Your task to perform on an android device: show emergency info Image 0: 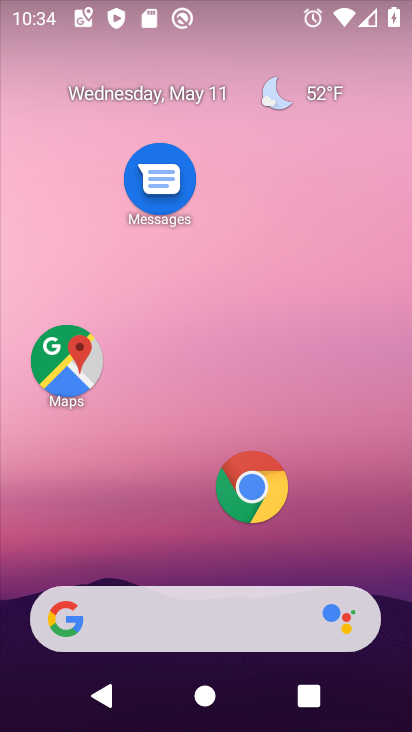
Step 0: drag from (157, 558) to (200, 210)
Your task to perform on an android device: show emergency info Image 1: 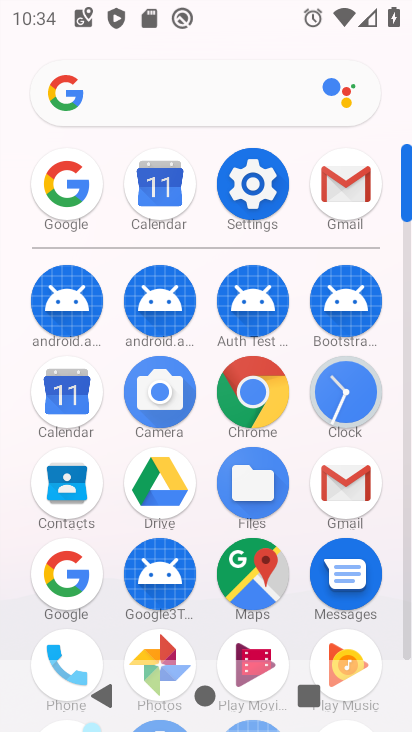
Step 1: click (234, 214)
Your task to perform on an android device: show emergency info Image 2: 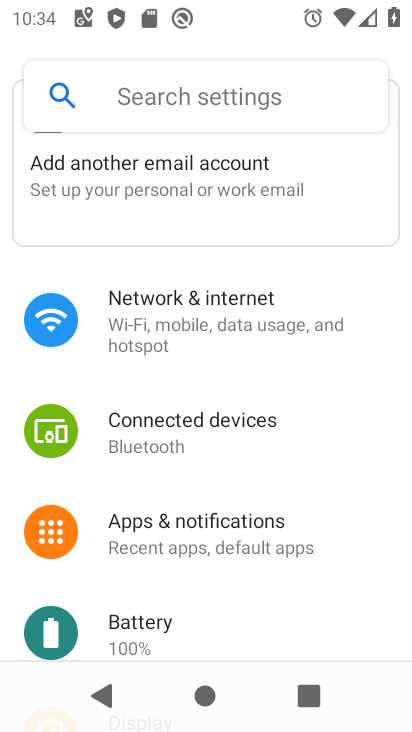
Step 2: drag from (185, 580) to (216, 269)
Your task to perform on an android device: show emergency info Image 3: 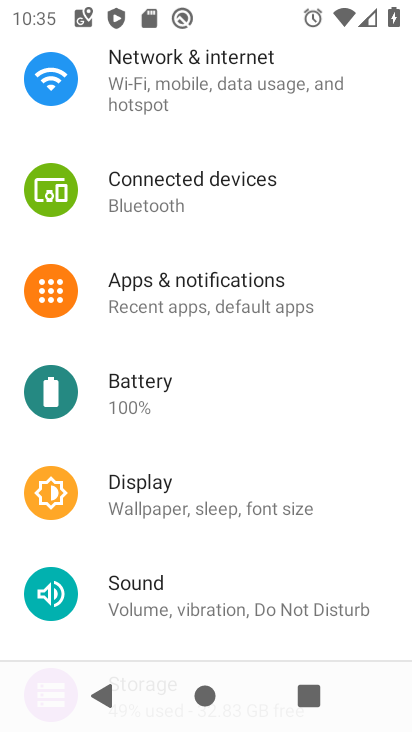
Step 3: drag from (248, 542) to (274, 230)
Your task to perform on an android device: show emergency info Image 4: 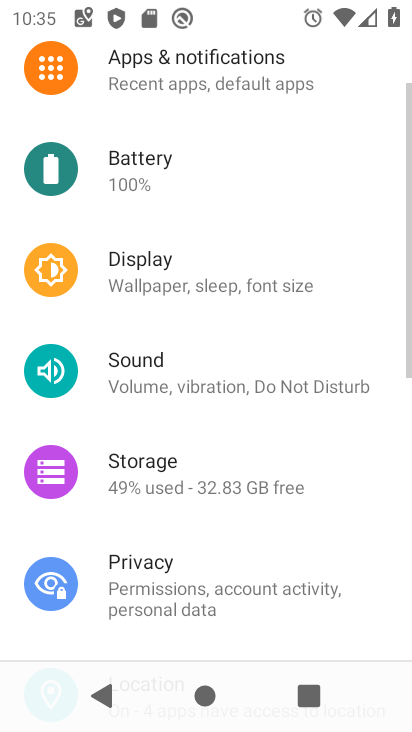
Step 4: drag from (264, 574) to (291, 183)
Your task to perform on an android device: show emergency info Image 5: 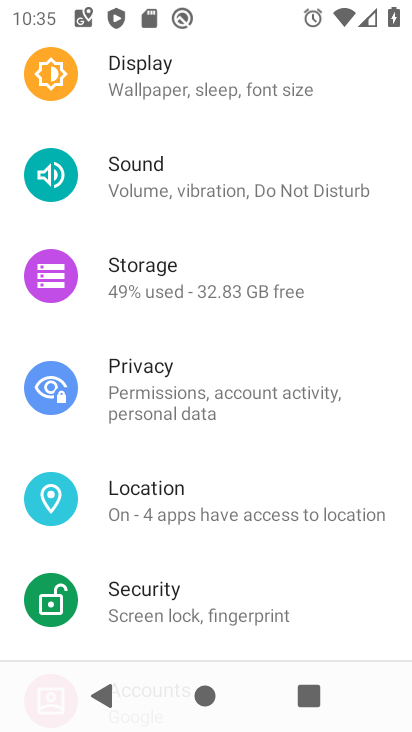
Step 5: drag from (235, 570) to (246, 268)
Your task to perform on an android device: show emergency info Image 6: 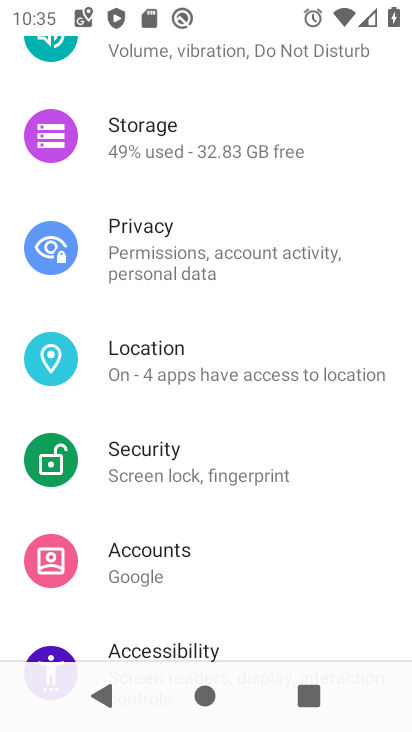
Step 6: drag from (227, 551) to (246, 169)
Your task to perform on an android device: show emergency info Image 7: 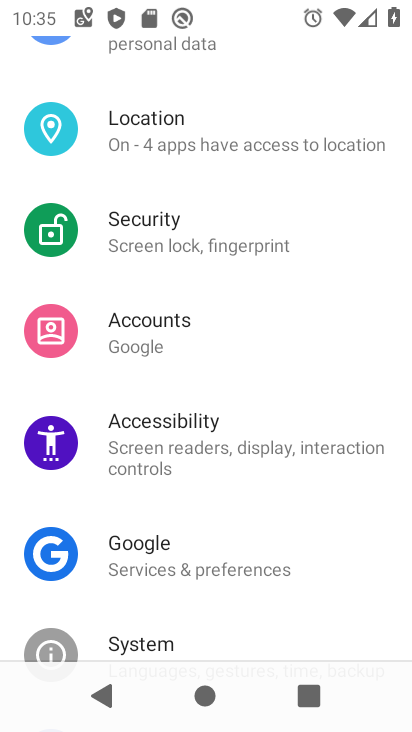
Step 7: drag from (239, 576) to (259, 141)
Your task to perform on an android device: show emergency info Image 8: 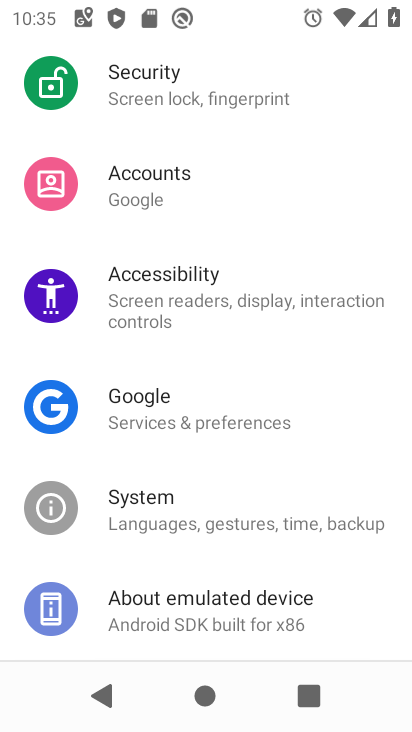
Step 8: click (202, 610)
Your task to perform on an android device: show emergency info Image 9: 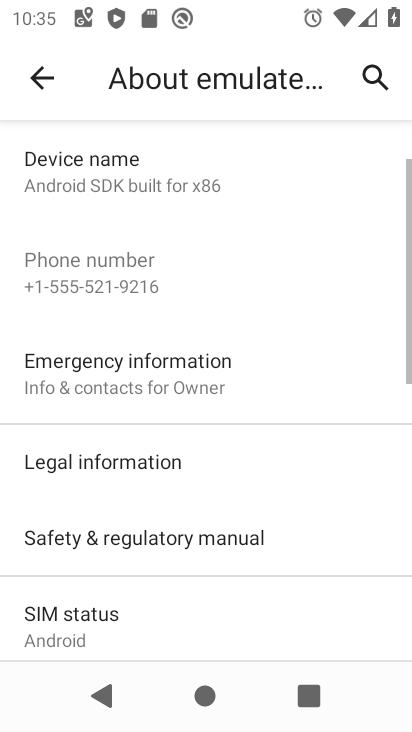
Step 9: click (166, 352)
Your task to perform on an android device: show emergency info Image 10: 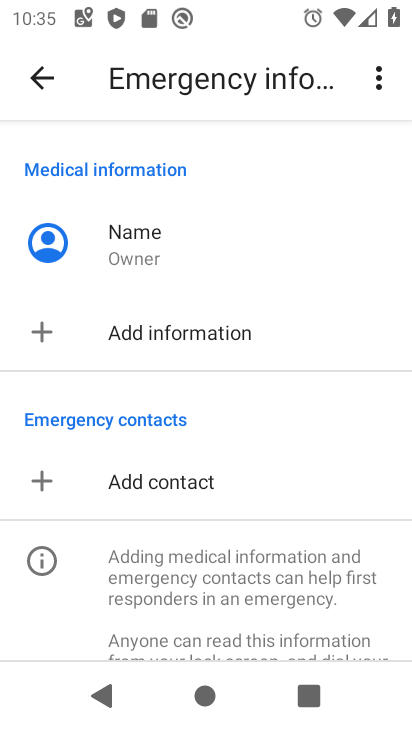
Step 10: task complete